Your task to perform on an android device: Open Youtube and go to "Your channel" Image 0: 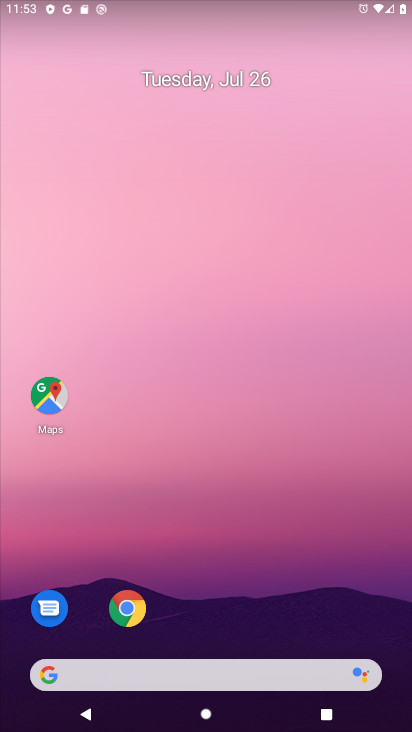
Step 0: drag from (197, 678) to (219, 81)
Your task to perform on an android device: Open Youtube and go to "Your channel" Image 1: 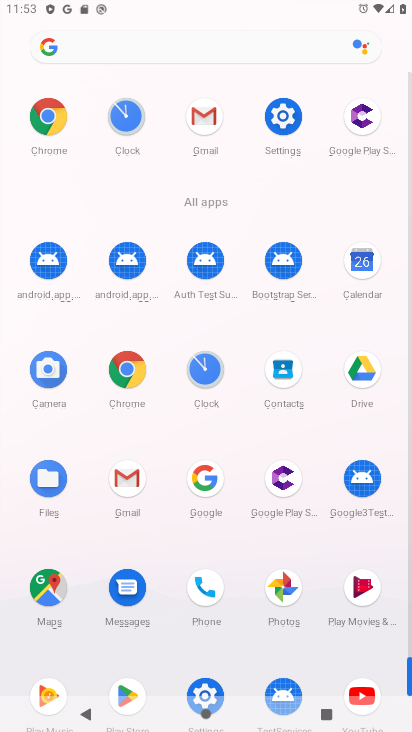
Step 1: drag from (245, 455) to (268, 229)
Your task to perform on an android device: Open Youtube and go to "Your channel" Image 2: 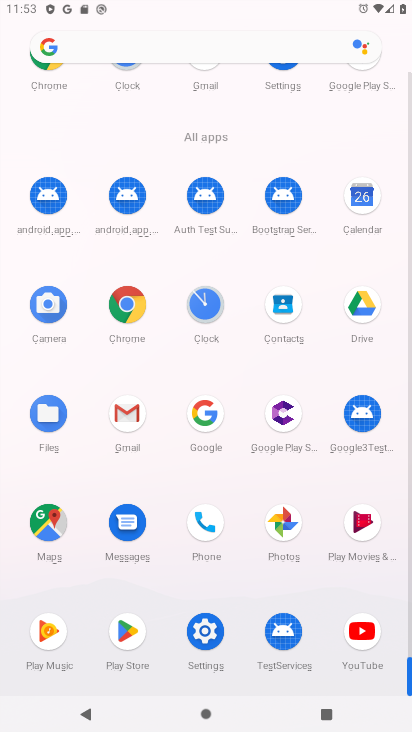
Step 2: click (363, 630)
Your task to perform on an android device: Open Youtube and go to "Your channel" Image 3: 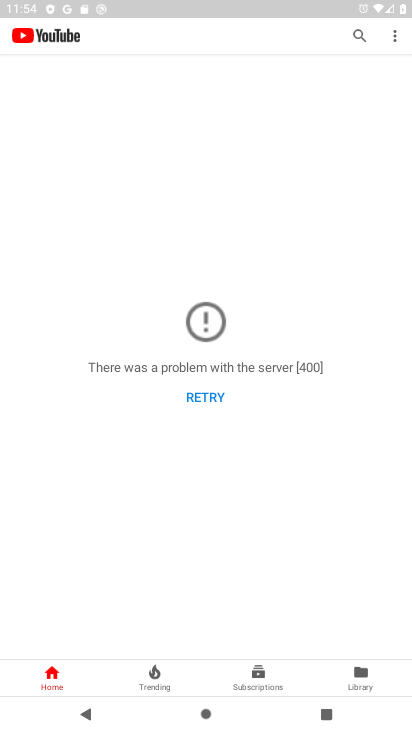
Step 3: click (204, 395)
Your task to perform on an android device: Open Youtube and go to "Your channel" Image 4: 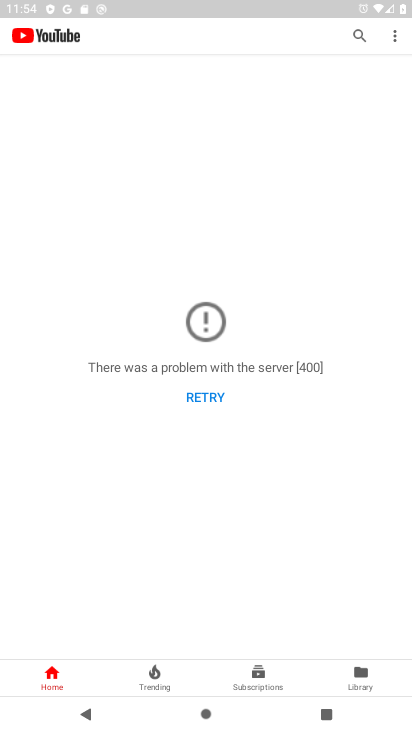
Step 4: click (204, 395)
Your task to perform on an android device: Open Youtube and go to "Your channel" Image 5: 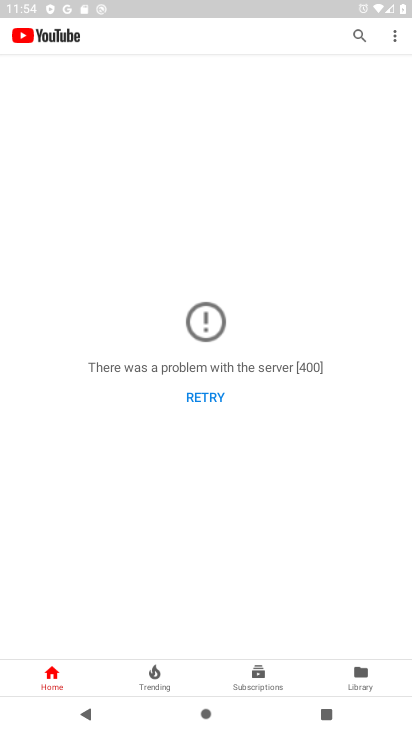
Step 5: click (204, 395)
Your task to perform on an android device: Open Youtube and go to "Your channel" Image 6: 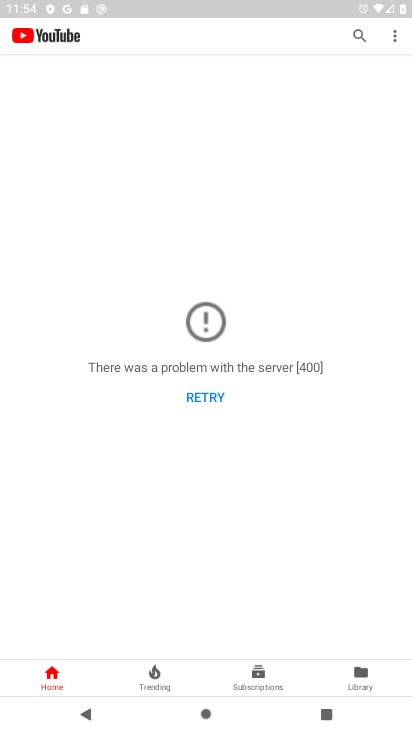
Step 6: click (204, 395)
Your task to perform on an android device: Open Youtube and go to "Your channel" Image 7: 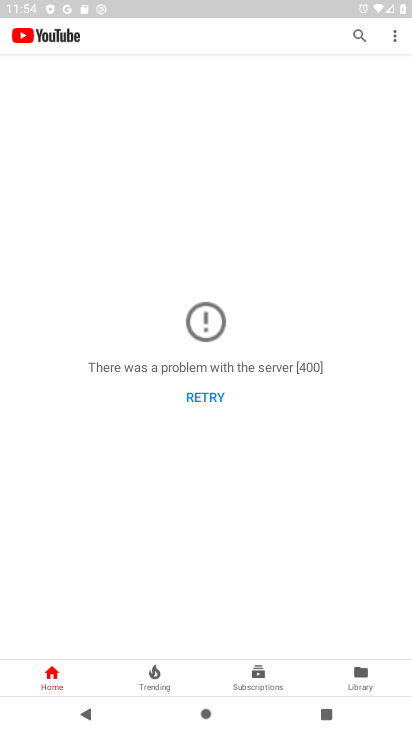
Step 7: click (204, 395)
Your task to perform on an android device: Open Youtube and go to "Your channel" Image 8: 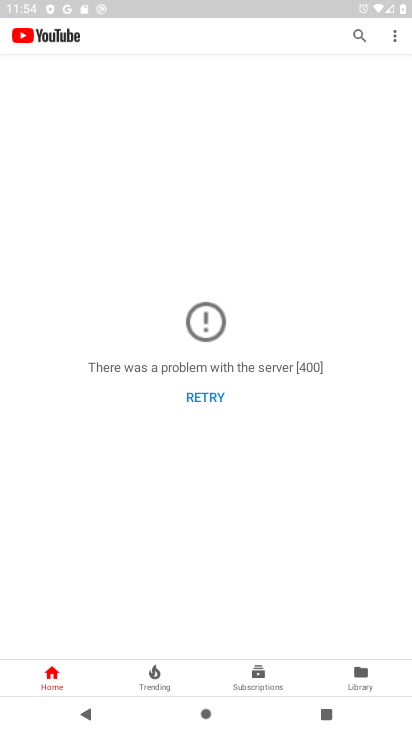
Step 8: click (205, 395)
Your task to perform on an android device: Open Youtube and go to "Your channel" Image 9: 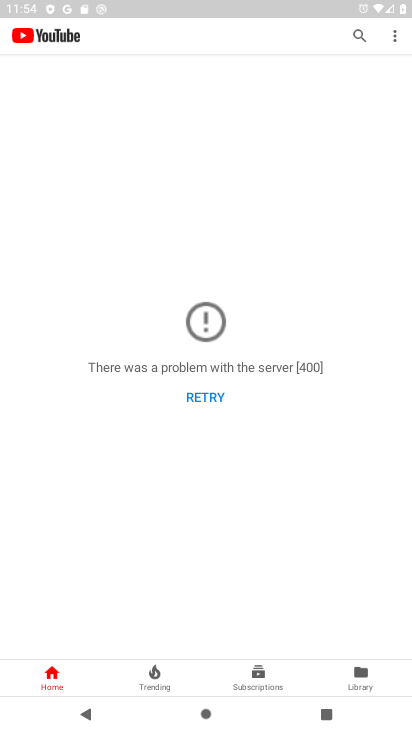
Step 9: click (205, 395)
Your task to perform on an android device: Open Youtube and go to "Your channel" Image 10: 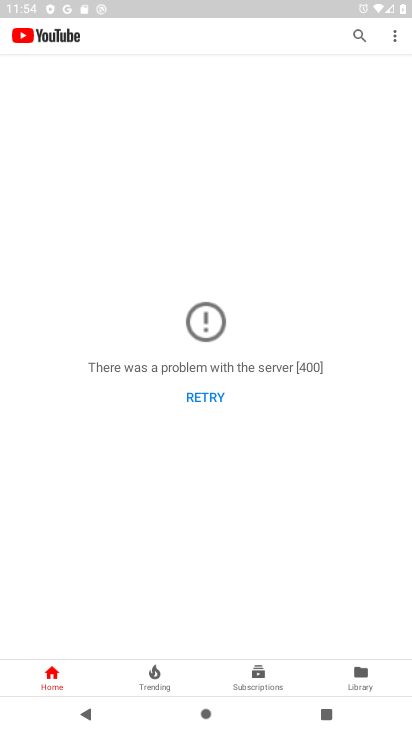
Step 10: task complete